Your task to perform on an android device: What's on my calendar today? Image 0: 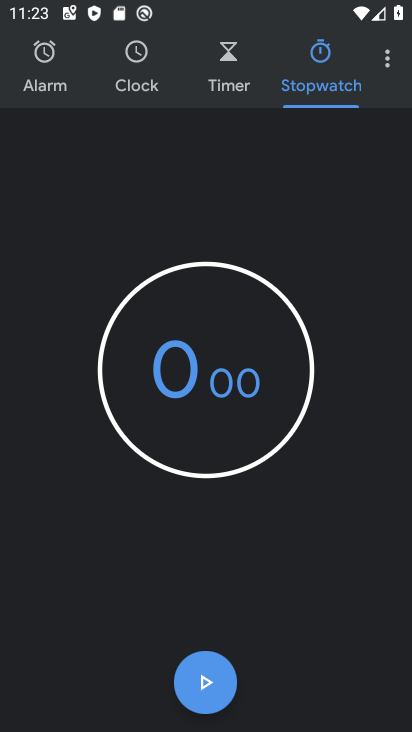
Step 0: press home button
Your task to perform on an android device: What's on my calendar today? Image 1: 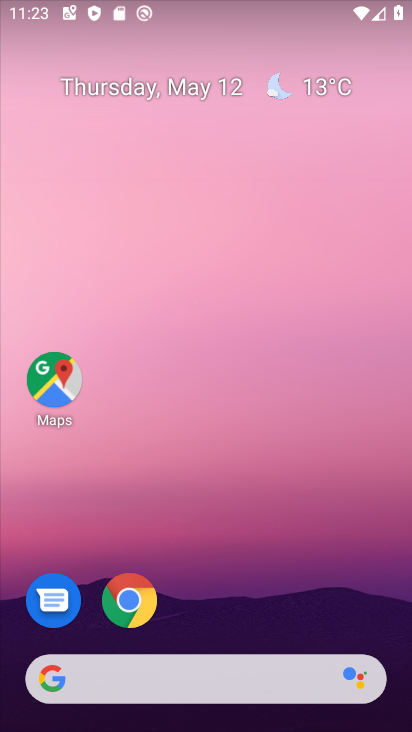
Step 1: drag from (378, 627) to (341, 68)
Your task to perform on an android device: What's on my calendar today? Image 2: 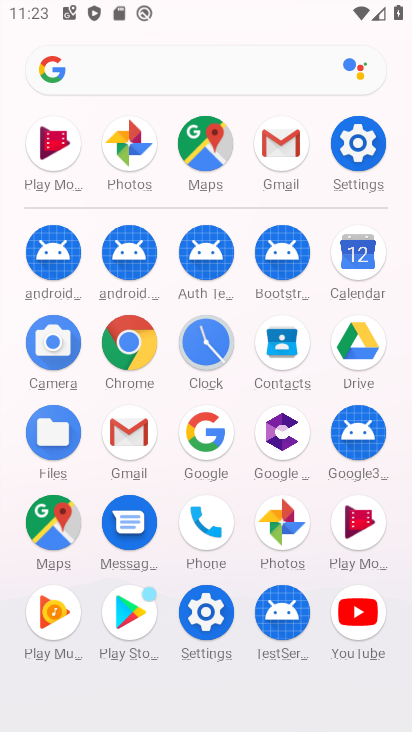
Step 2: click (357, 255)
Your task to perform on an android device: What's on my calendar today? Image 3: 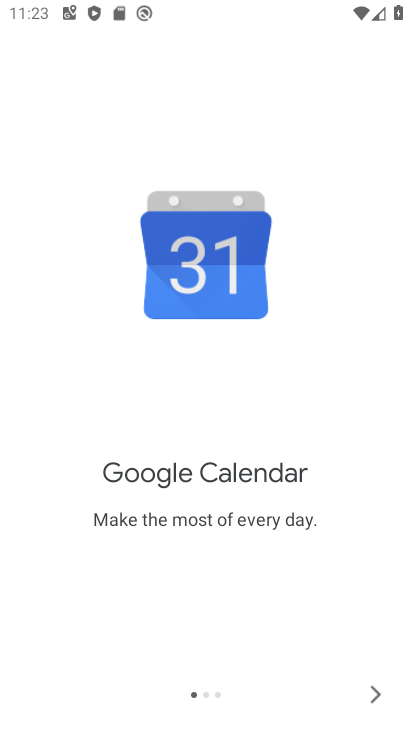
Step 3: click (374, 689)
Your task to perform on an android device: What's on my calendar today? Image 4: 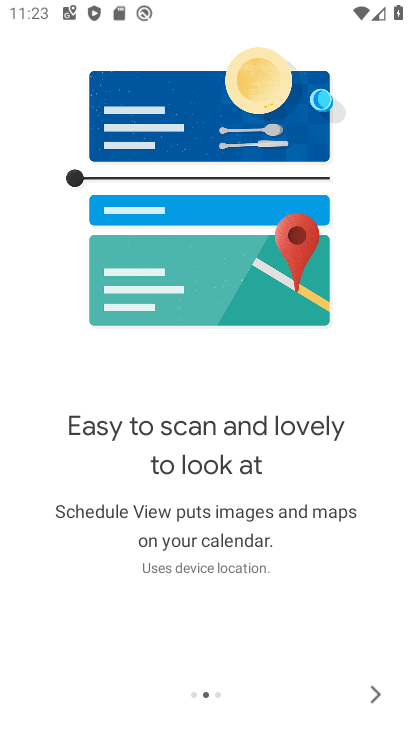
Step 4: click (374, 689)
Your task to perform on an android device: What's on my calendar today? Image 5: 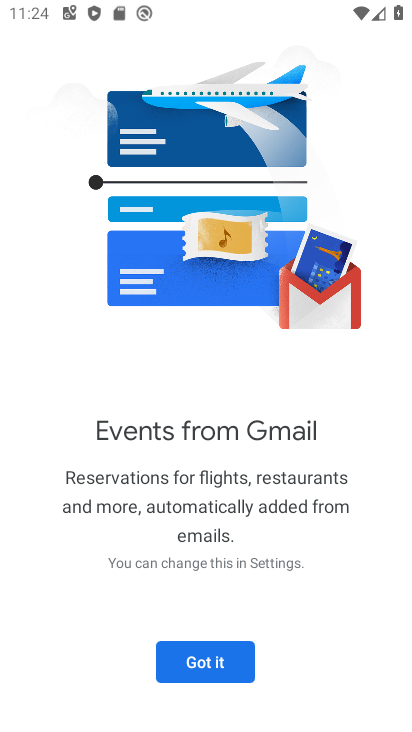
Step 5: click (201, 661)
Your task to perform on an android device: What's on my calendar today? Image 6: 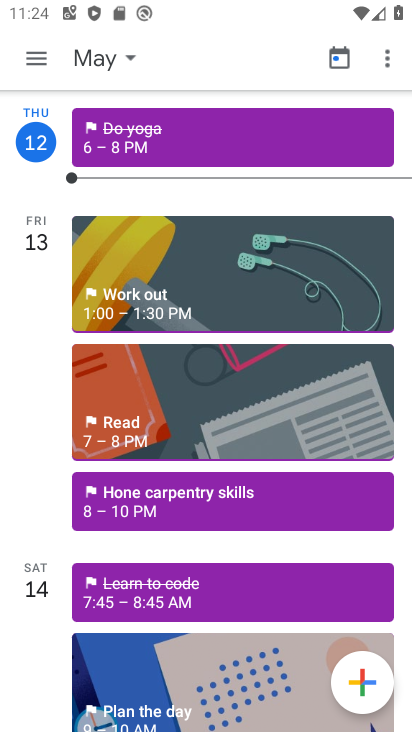
Step 6: click (36, 57)
Your task to perform on an android device: What's on my calendar today? Image 7: 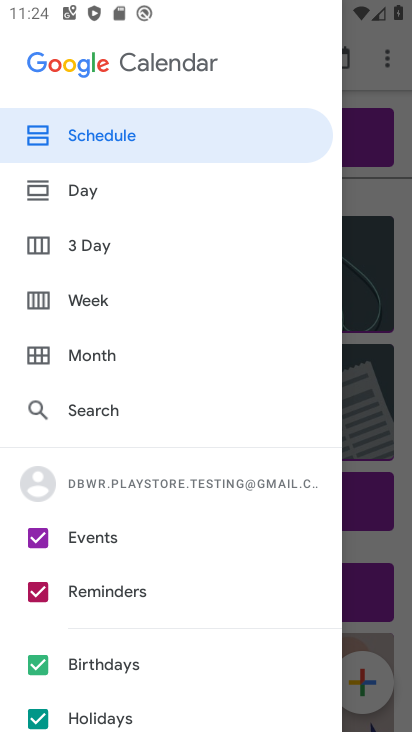
Step 7: click (85, 191)
Your task to perform on an android device: What's on my calendar today? Image 8: 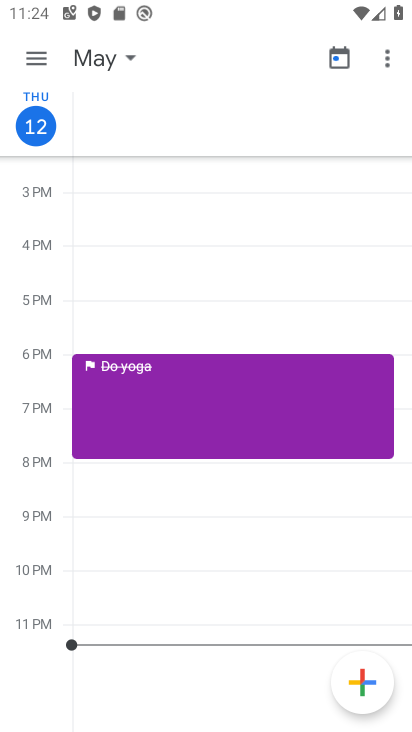
Step 8: click (122, 58)
Your task to perform on an android device: What's on my calendar today? Image 9: 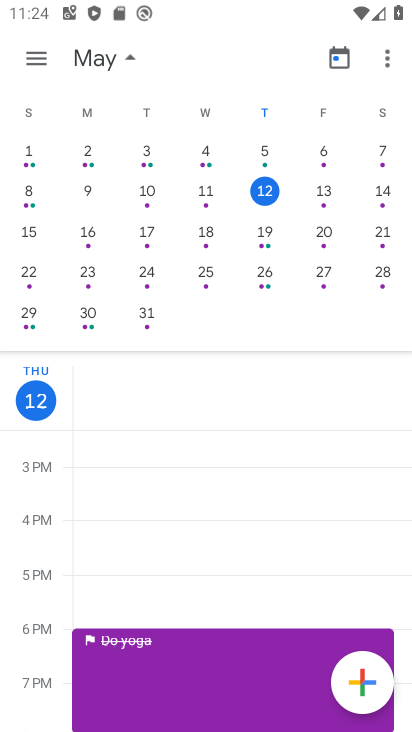
Step 9: click (257, 188)
Your task to perform on an android device: What's on my calendar today? Image 10: 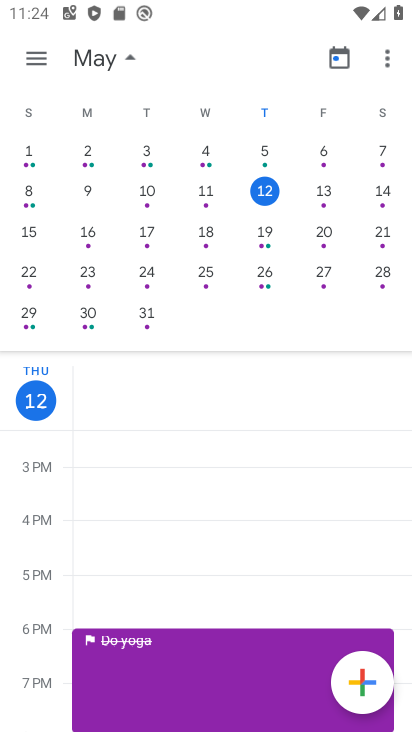
Step 10: task complete